Your task to perform on an android device: Open Wikipedia Image 0: 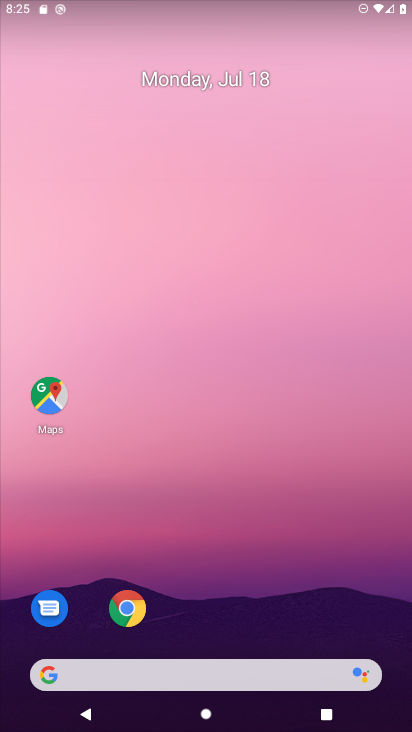
Step 0: click (129, 601)
Your task to perform on an android device: Open Wikipedia Image 1: 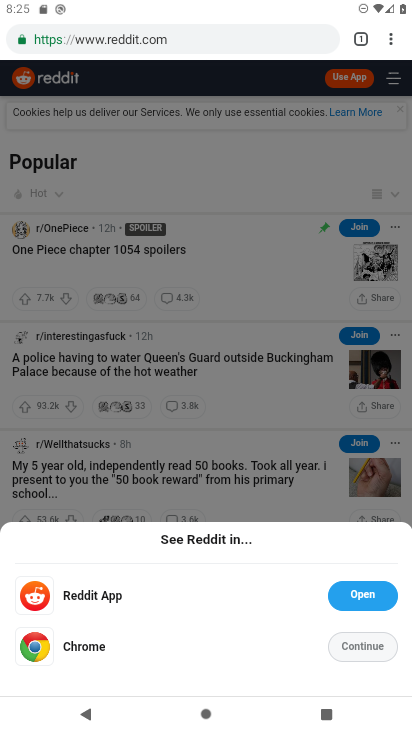
Step 1: click (242, 37)
Your task to perform on an android device: Open Wikipedia Image 2: 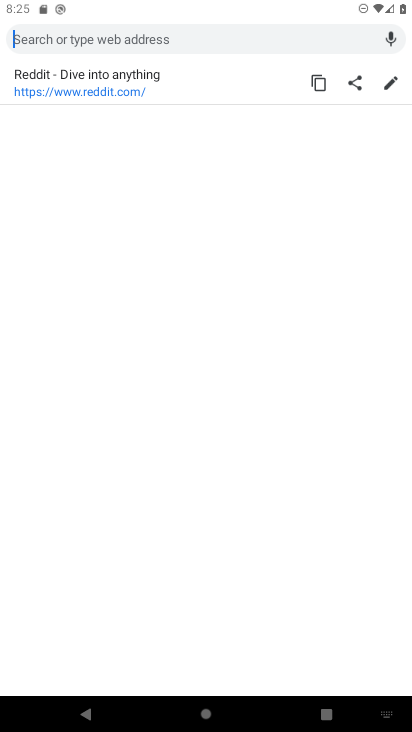
Step 2: type "wikipedia"
Your task to perform on an android device: Open Wikipedia Image 3: 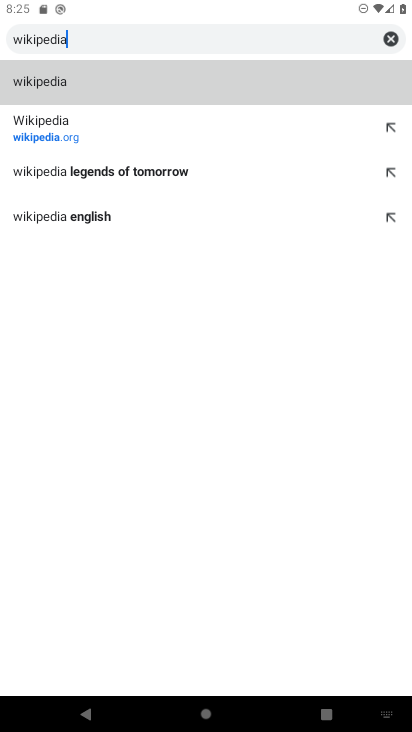
Step 3: click (319, 69)
Your task to perform on an android device: Open Wikipedia Image 4: 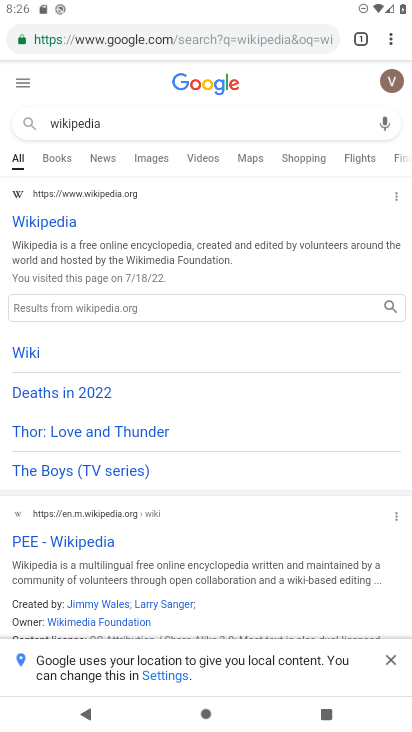
Step 4: click (39, 216)
Your task to perform on an android device: Open Wikipedia Image 5: 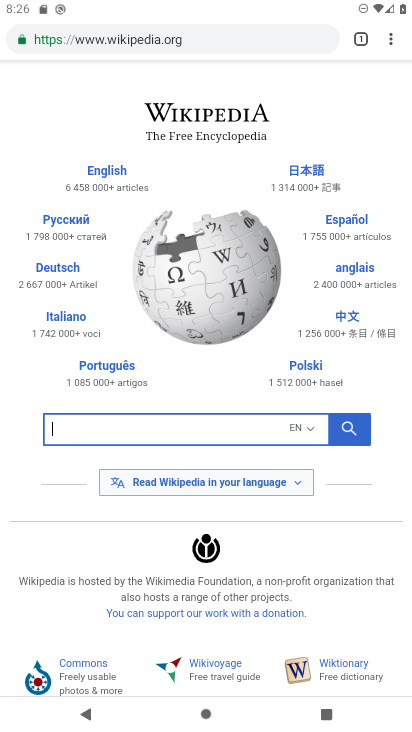
Step 5: task complete